Your task to perform on an android device: Open calendar and show me the third week of next month Image 0: 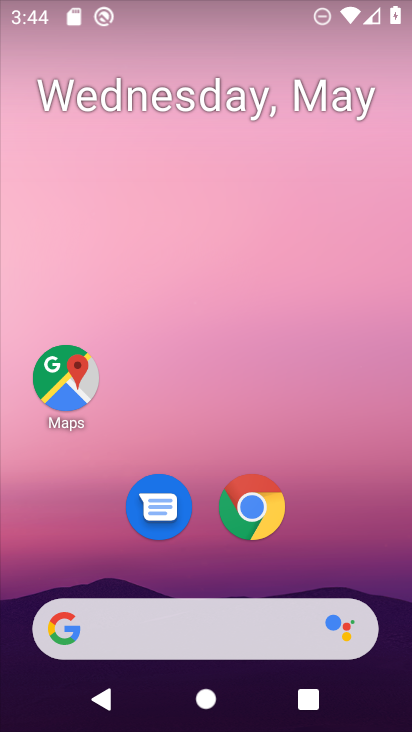
Step 0: drag from (219, 562) to (275, 145)
Your task to perform on an android device: Open calendar and show me the third week of next month Image 1: 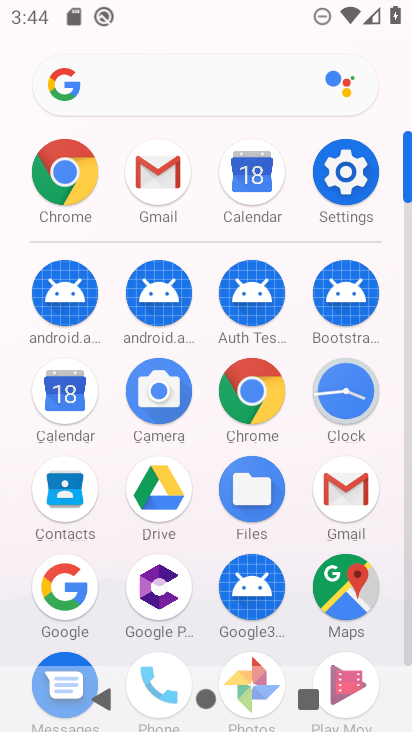
Step 1: click (77, 389)
Your task to perform on an android device: Open calendar and show me the third week of next month Image 2: 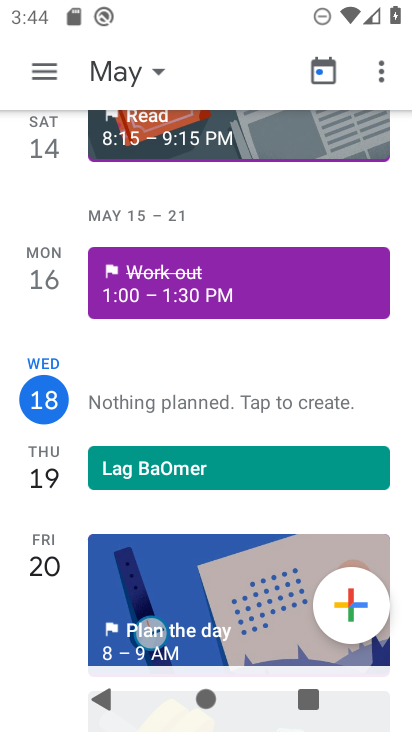
Step 2: click (147, 70)
Your task to perform on an android device: Open calendar and show me the third week of next month Image 3: 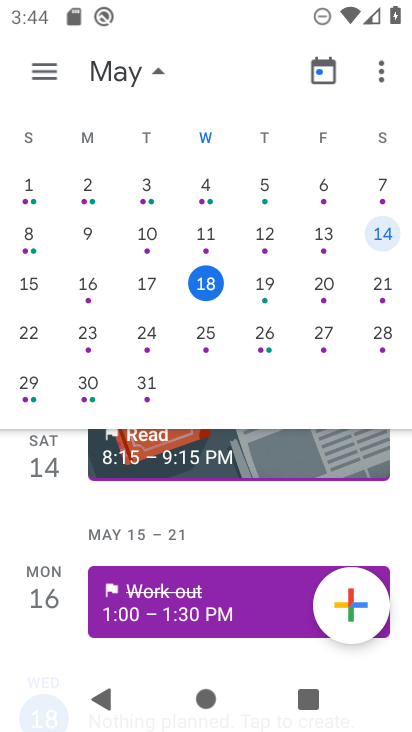
Step 3: drag from (386, 288) to (41, 249)
Your task to perform on an android device: Open calendar and show me the third week of next month Image 4: 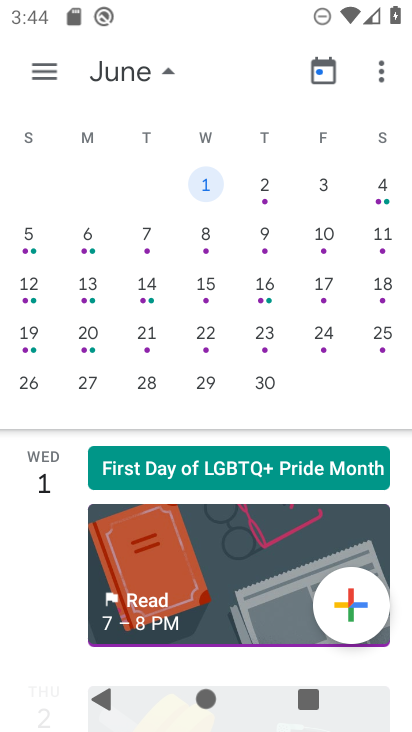
Step 4: click (92, 335)
Your task to perform on an android device: Open calendar and show me the third week of next month Image 5: 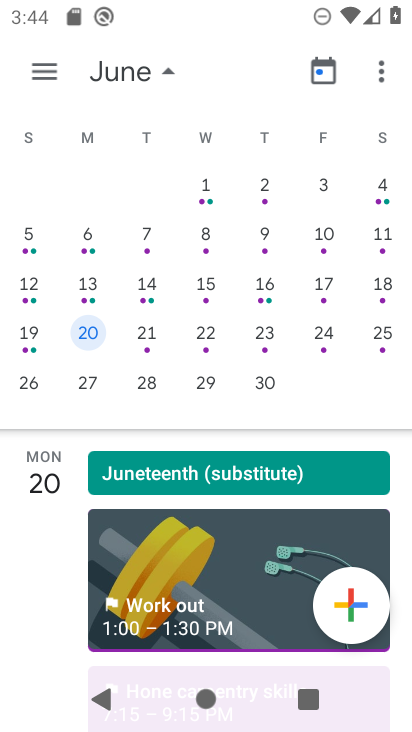
Step 5: click (94, 297)
Your task to perform on an android device: Open calendar and show me the third week of next month Image 6: 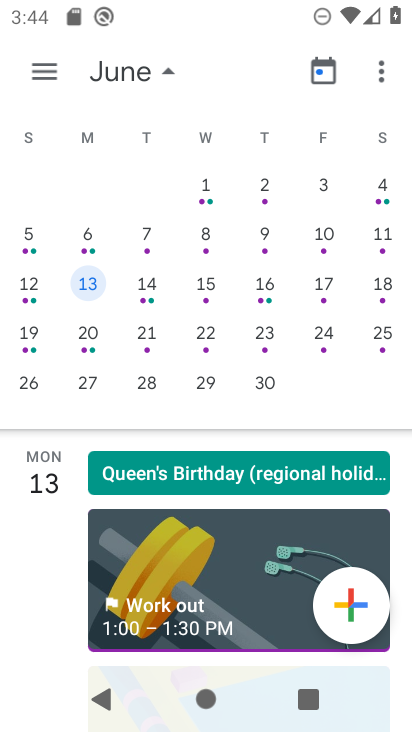
Step 6: task complete